Your task to perform on an android device: delete a single message in the gmail app Image 0: 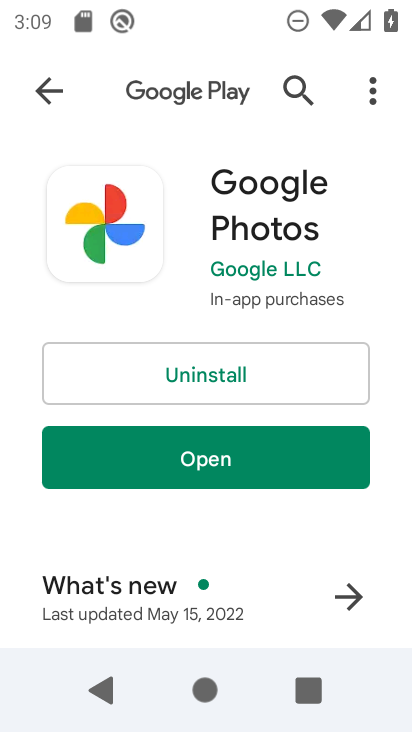
Step 0: press home button
Your task to perform on an android device: delete a single message in the gmail app Image 1: 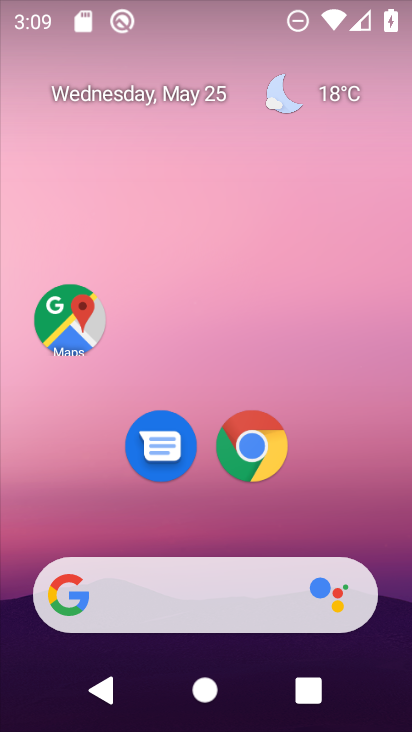
Step 1: drag from (212, 592) to (135, 8)
Your task to perform on an android device: delete a single message in the gmail app Image 2: 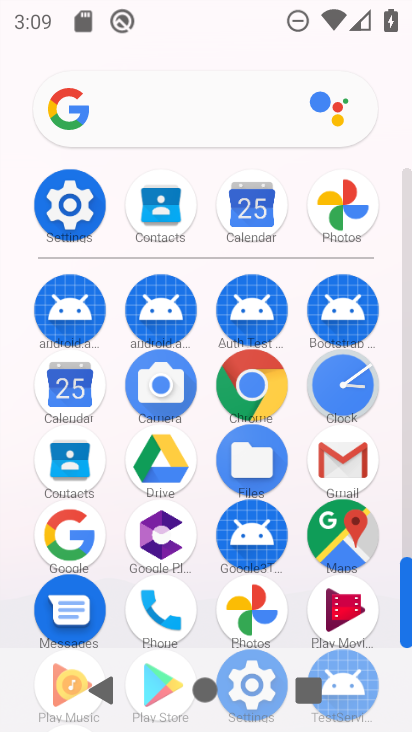
Step 2: click (323, 462)
Your task to perform on an android device: delete a single message in the gmail app Image 3: 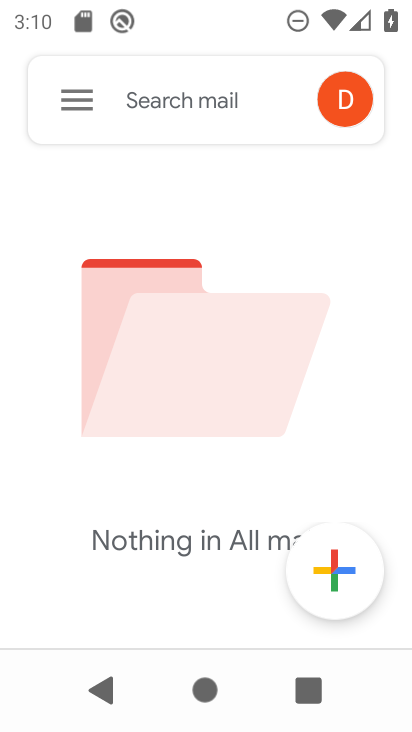
Step 3: click (77, 100)
Your task to perform on an android device: delete a single message in the gmail app Image 4: 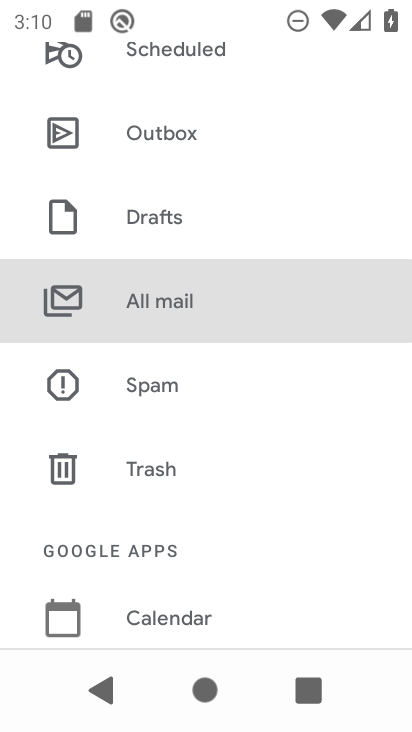
Step 4: click (160, 274)
Your task to perform on an android device: delete a single message in the gmail app Image 5: 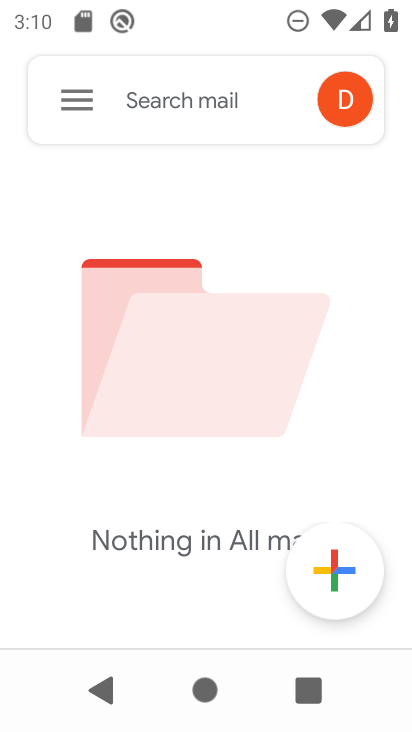
Step 5: task complete